Your task to perform on an android device: Go to Amazon Image 0: 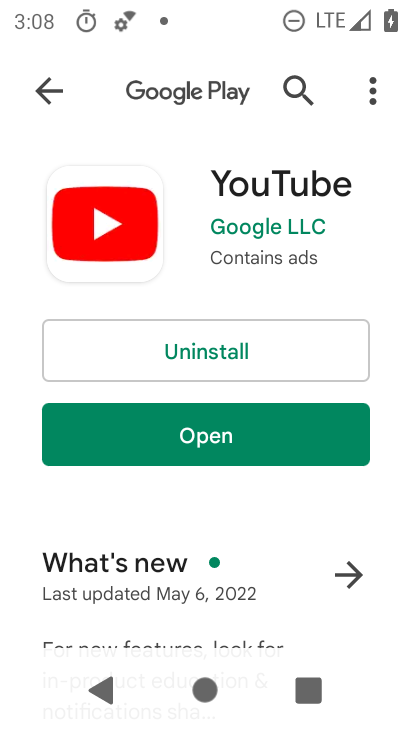
Step 0: press home button
Your task to perform on an android device: Go to Amazon Image 1: 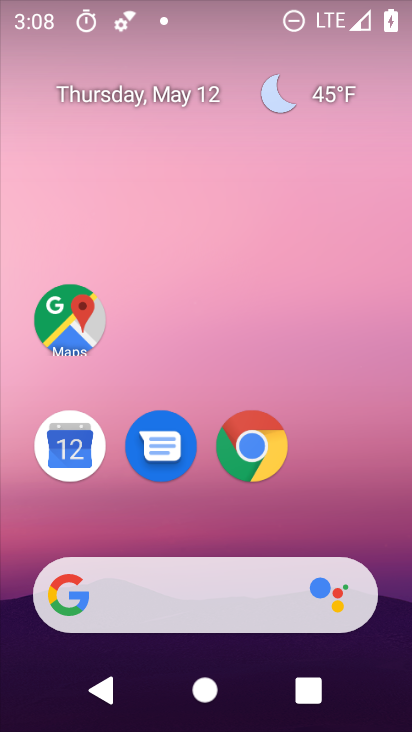
Step 1: click (263, 458)
Your task to perform on an android device: Go to Amazon Image 2: 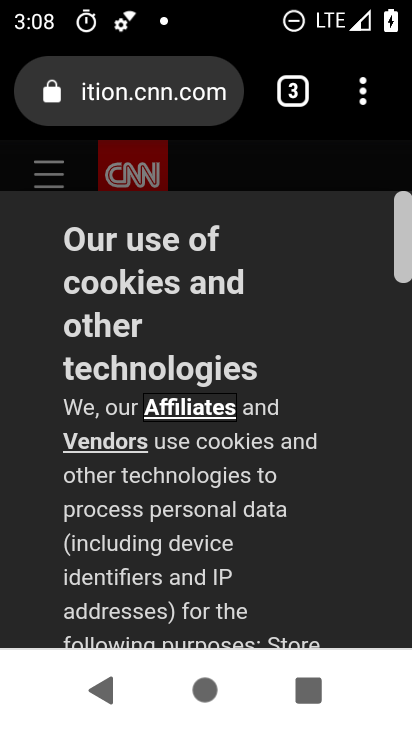
Step 2: click (302, 99)
Your task to perform on an android device: Go to Amazon Image 3: 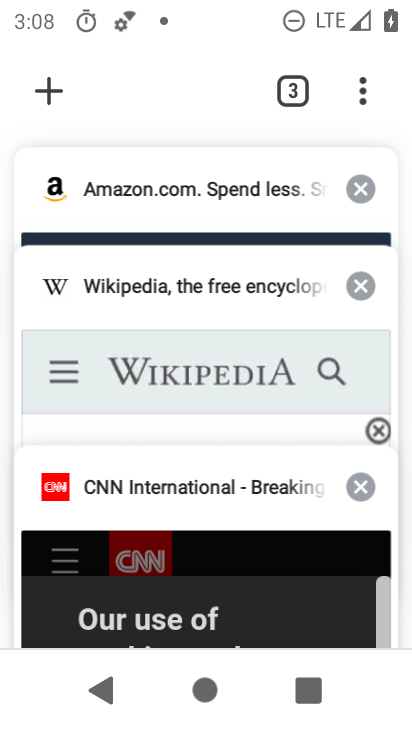
Step 3: click (230, 180)
Your task to perform on an android device: Go to Amazon Image 4: 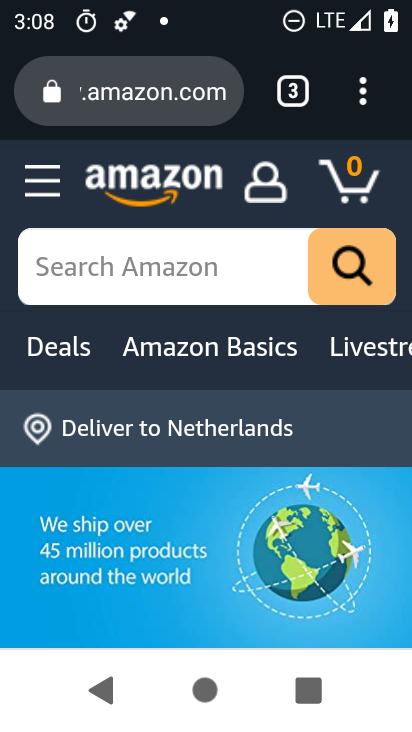
Step 4: task complete